Your task to perform on an android device: Open the calendar app, open the side menu, and click the "Day" option Image 0: 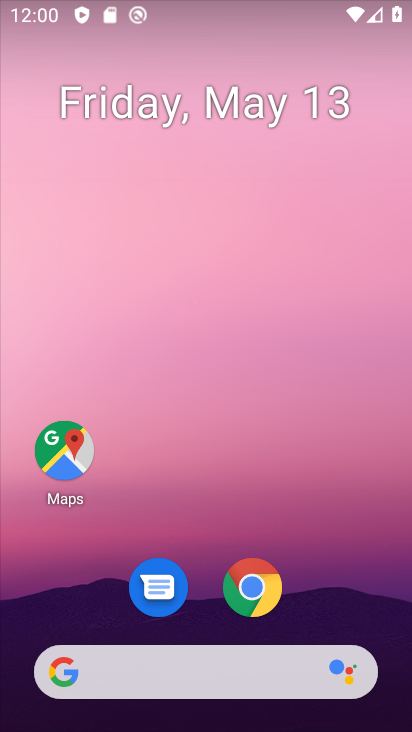
Step 0: drag from (189, 554) to (260, 42)
Your task to perform on an android device: Open the calendar app, open the side menu, and click the "Day" option Image 1: 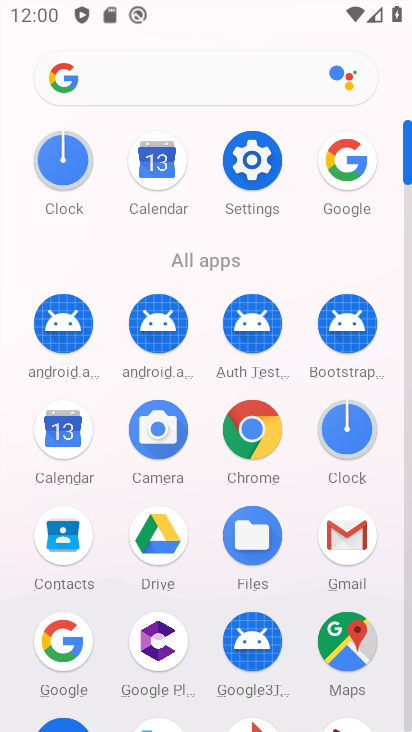
Step 1: click (59, 439)
Your task to perform on an android device: Open the calendar app, open the side menu, and click the "Day" option Image 2: 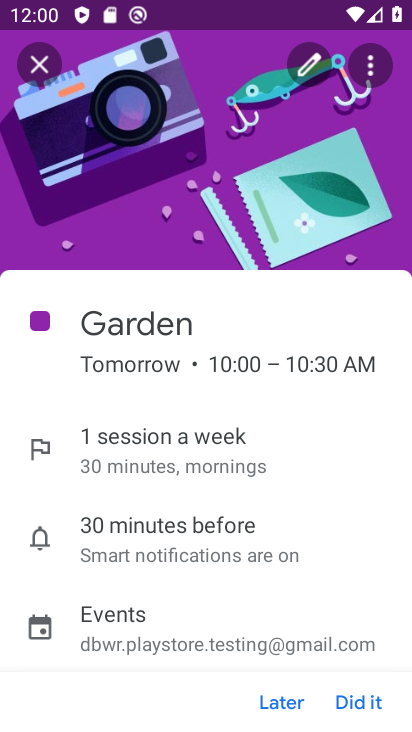
Step 2: click (280, 703)
Your task to perform on an android device: Open the calendar app, open the side menu, and click the "Day" option Image 3: 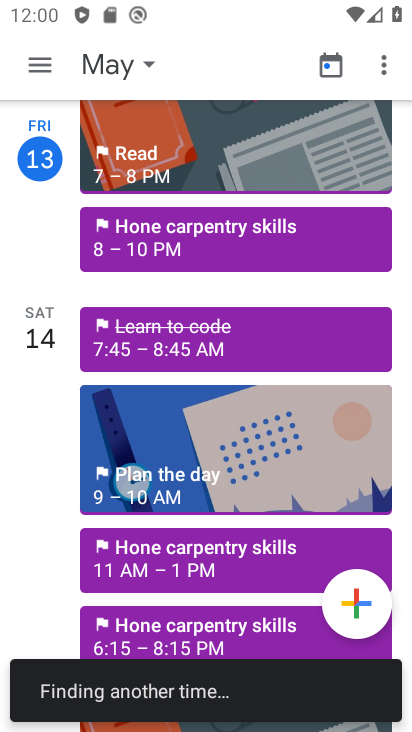
Step 3: click (30, 50)
Your task to perform on an android device: Open the calendar app, open the side menu, and click the "Day" option Image 4: 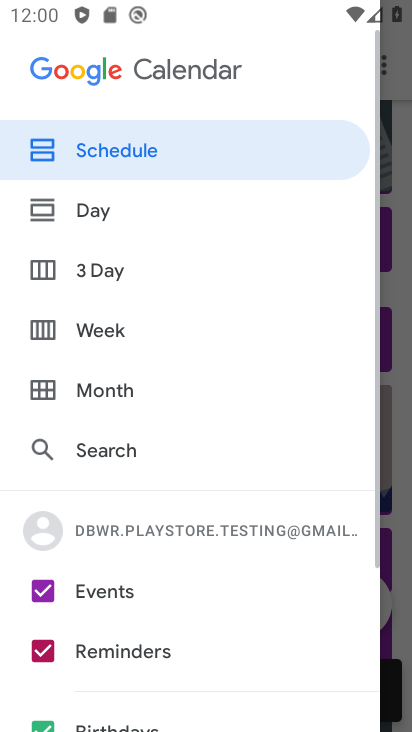
Step 4: click (68, 218)
Your task to perform on an android device: Open the calendar app, open the side menu, and click the "Day" option Image 5: 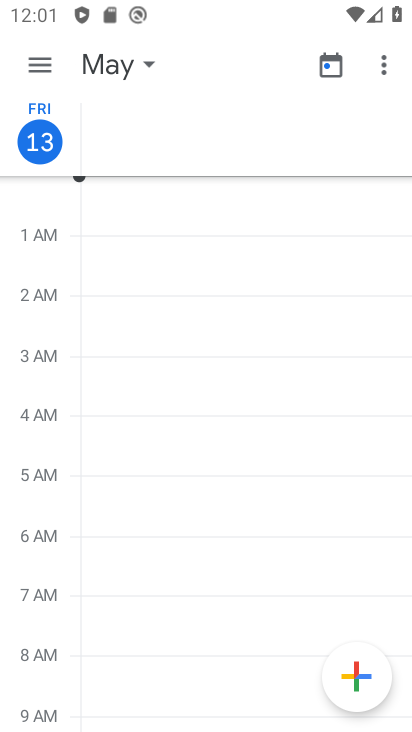
Step 5: task complete